Your task to perform on an android device: Open Android settings Image 0: 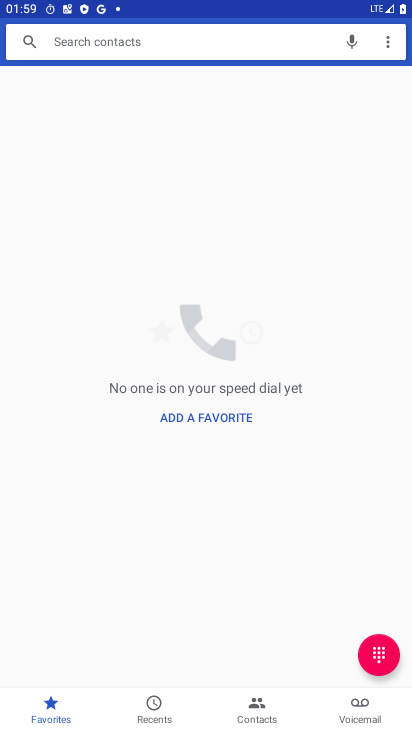
Step 0: press home button
Your task to perform on an android device: Open Android settings Image 1: 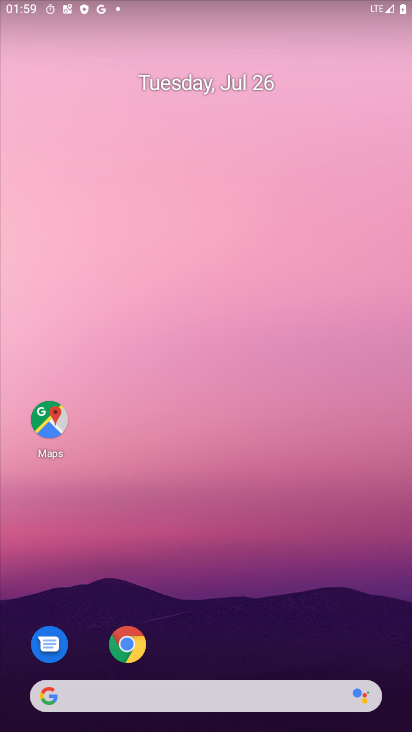
Step 1: drag from (226, 656) to (208, 0)
Your task to perform on an android device: Open Android settings Image 2: 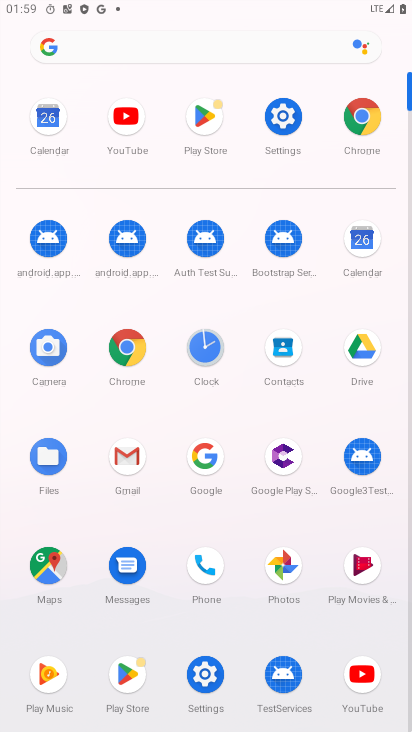
Step 2: click (279, 123)
Your task to perform on an android device: Open Android settings Image 3: 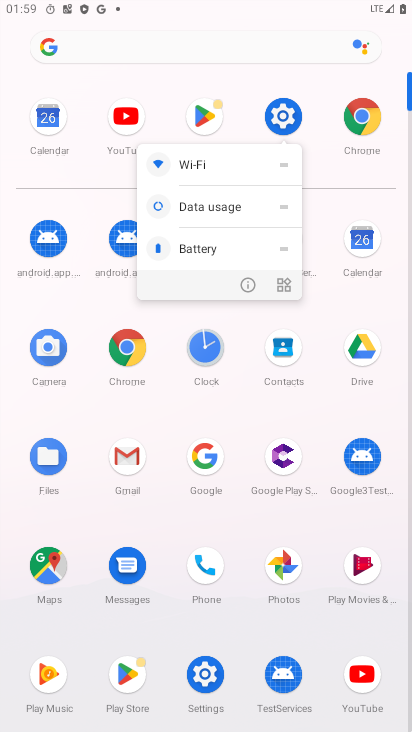
Step 3: click (285, 125)
Your task to perform on an android device: Open Android settings Image 4: 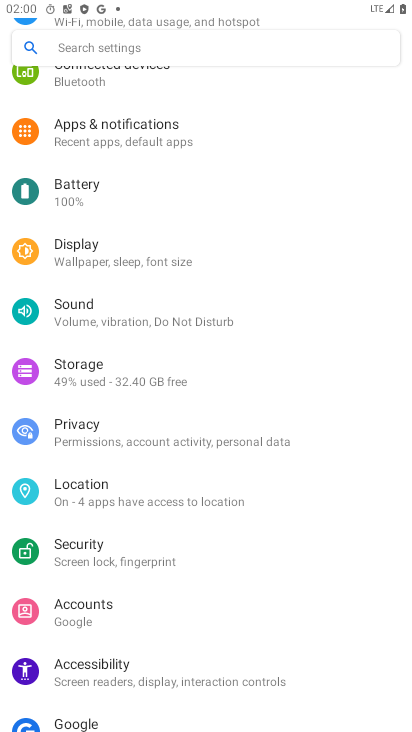
Step 4: task complete